Your task to perform on an android device: uninstall "WhatsApp Messenger" Image 0: 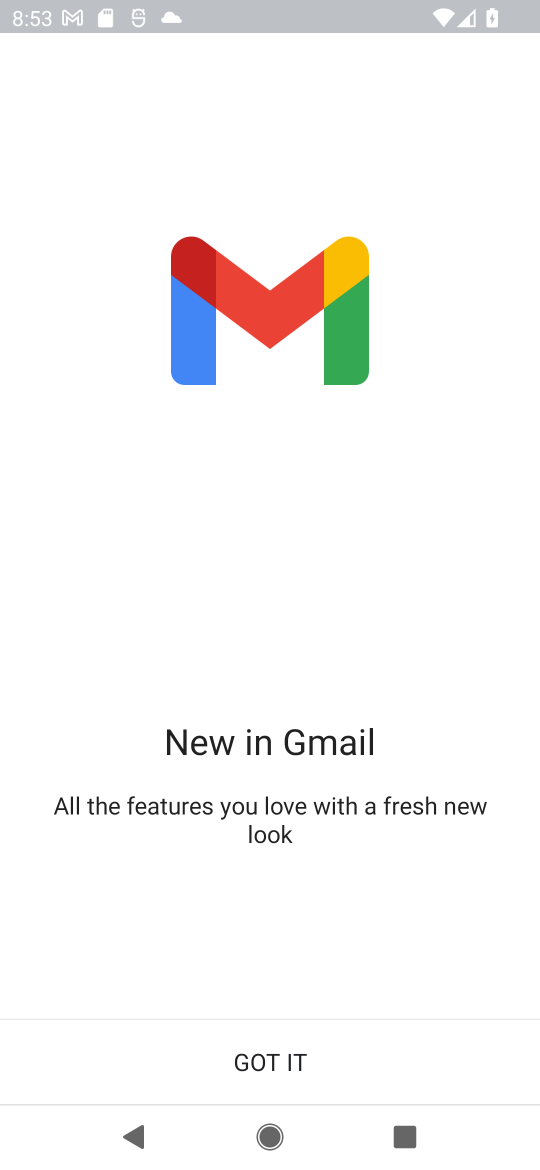
Step 0: press home button
Your task to perform on an android device: uninstall "WhatsApp Messenger" Image 1: 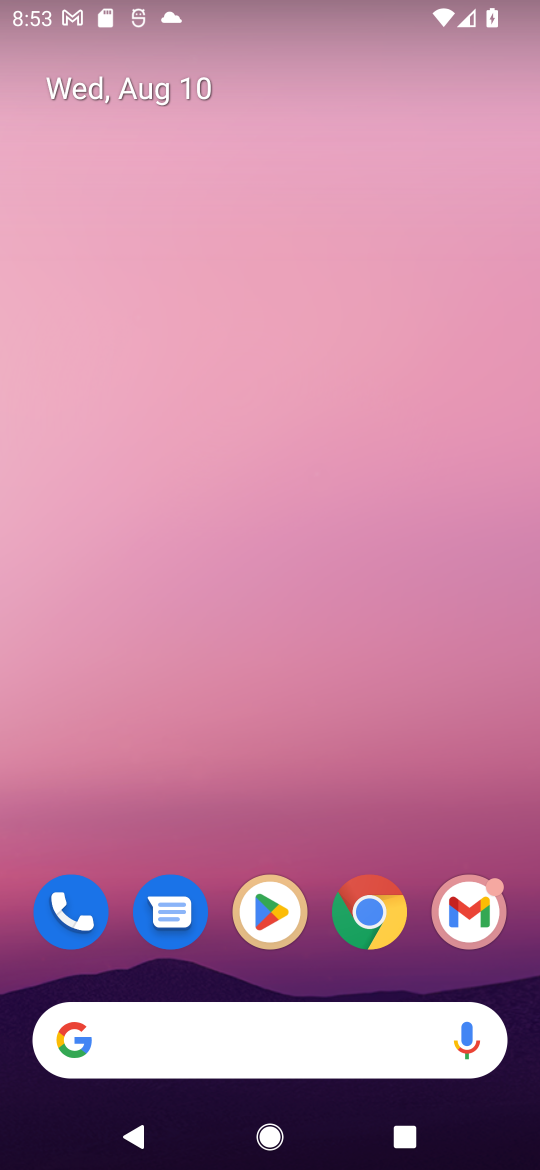
Step 1: drag from (521, 989) to (241, 63)
Your task to perform on an android device: uninstall "WhatsApp Messenger" Image 2: 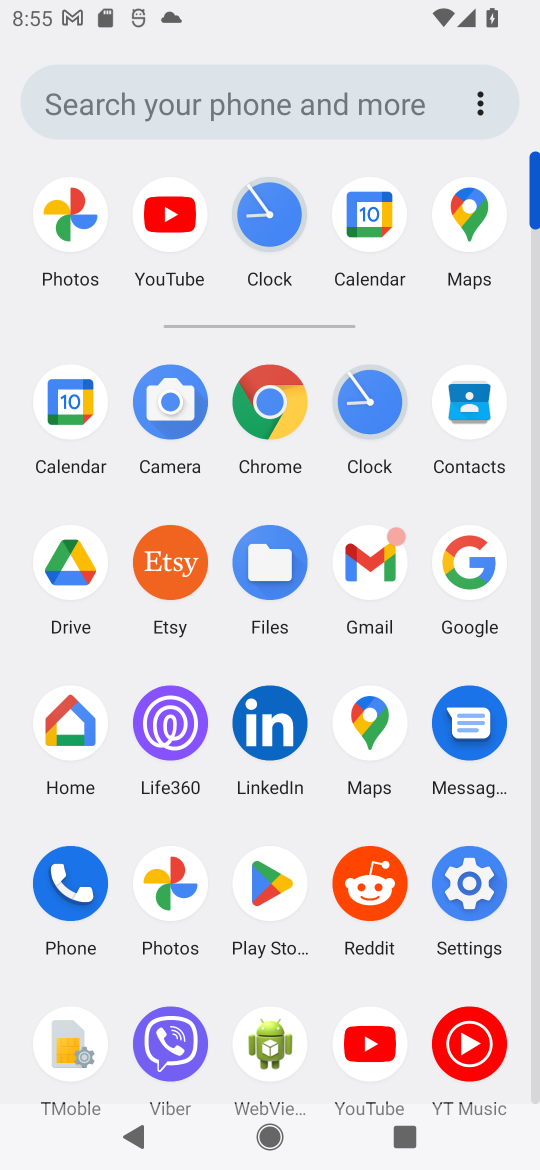
Step 2: click (243, 903)
Your task to perform on an android device: uninstall "WhatsApp Messenger" Image 3: 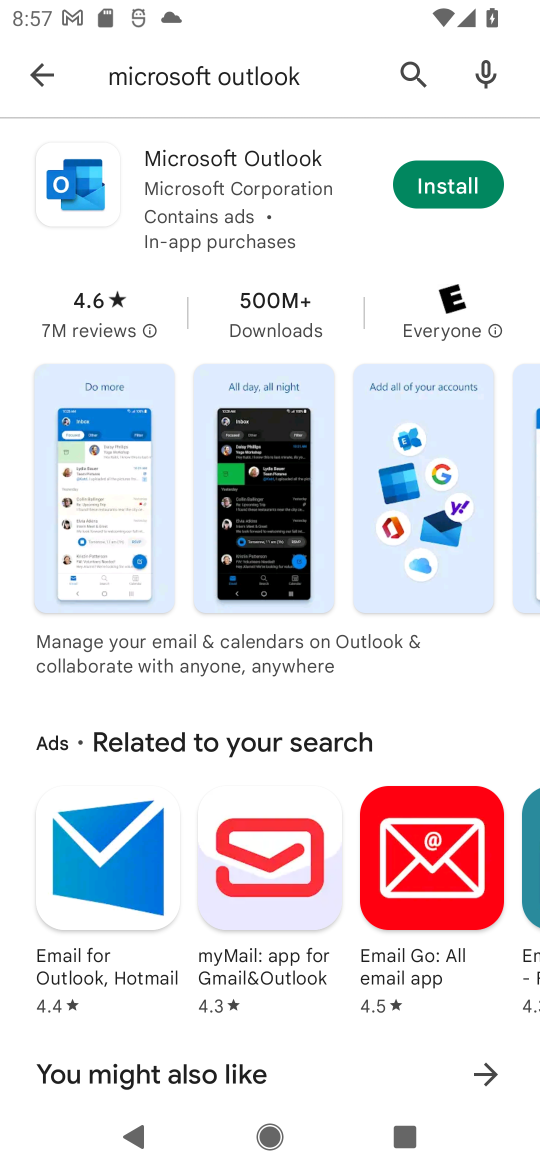
Step 3: press back button
Your task to perform on an android device: uninstall "WhatsApp Messenger" Image 4: 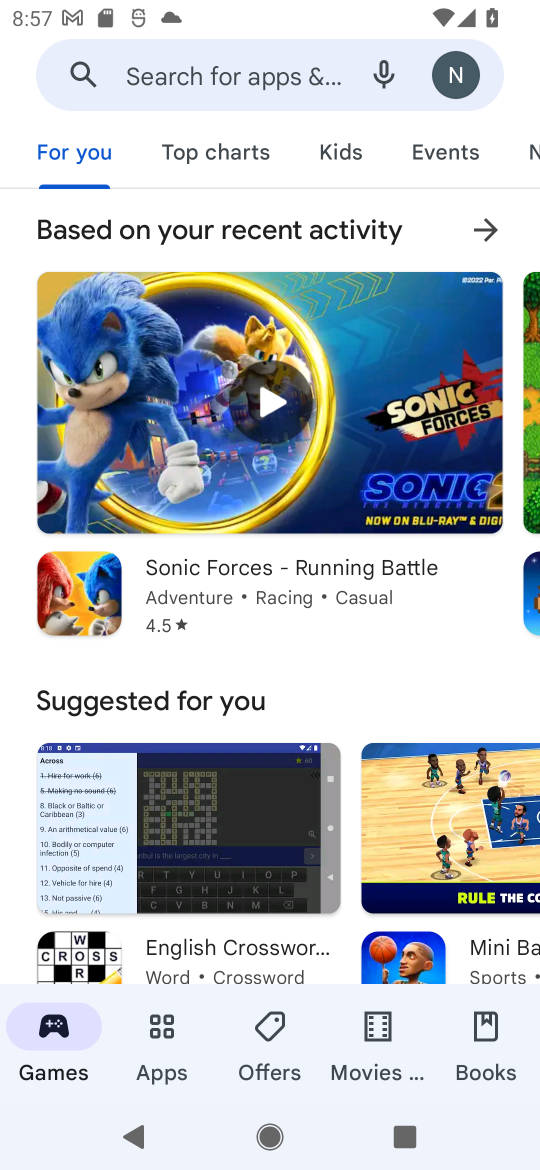
Step 4: click (199, 65)
Your task to perform on an android device: uninstall "WhatsApp Messenger" Image 5: 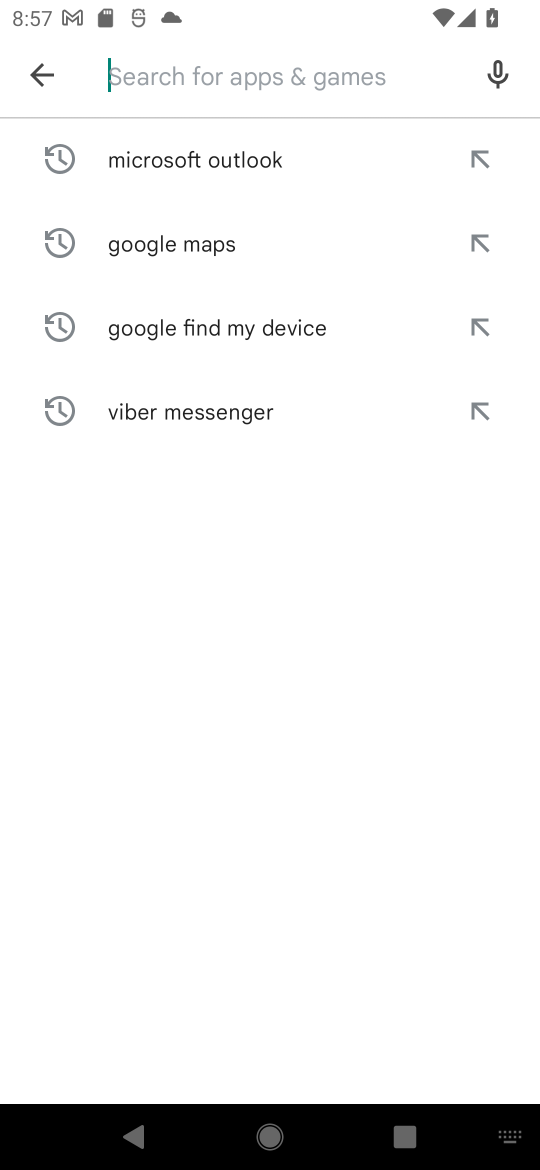
Step 5: type "WhatsApp Messenger"
Your task to perform on an android device: uninstall "WhatsApp Messenger" Image 6: 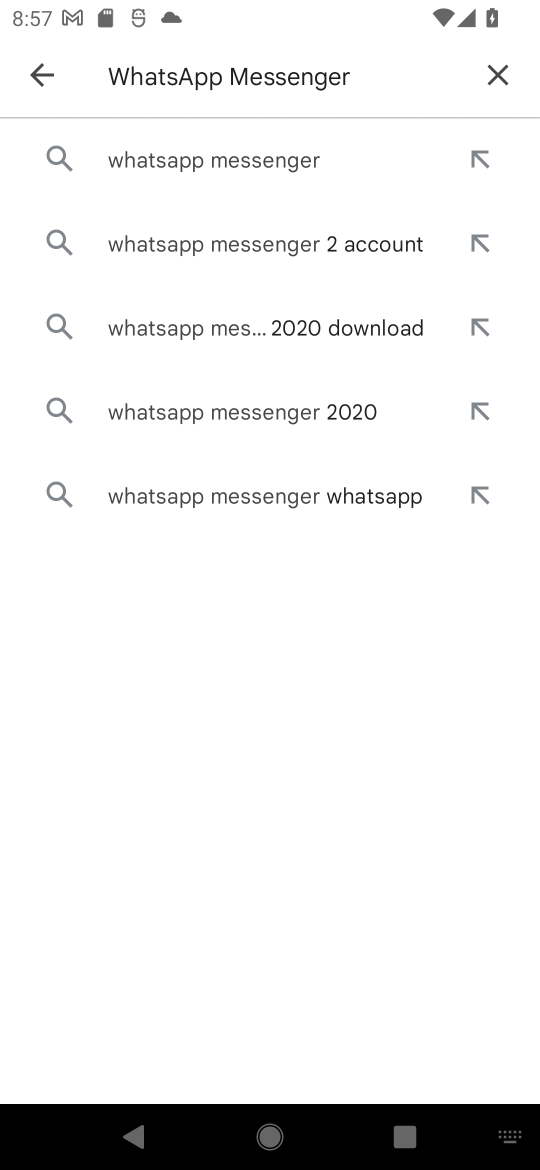
Step 6: click (230, 171)
Your task to perform on an android device: uninstall "WhatsApp Messenger" Image 7: 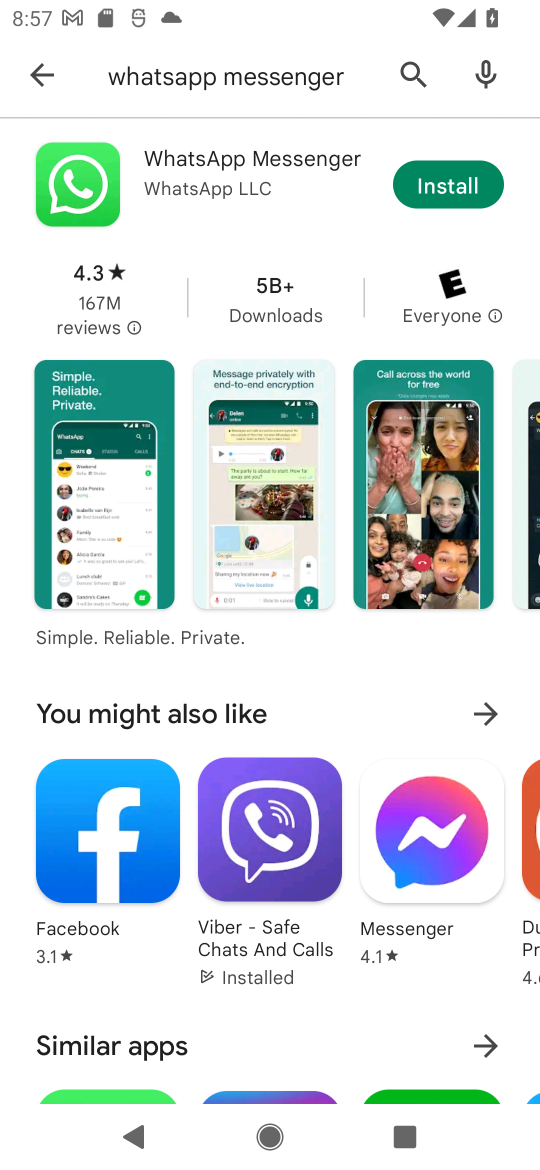
Step 7: task complete